Your task to perform on an android device: Search for seafood restaurants on Google Maps Image 0: 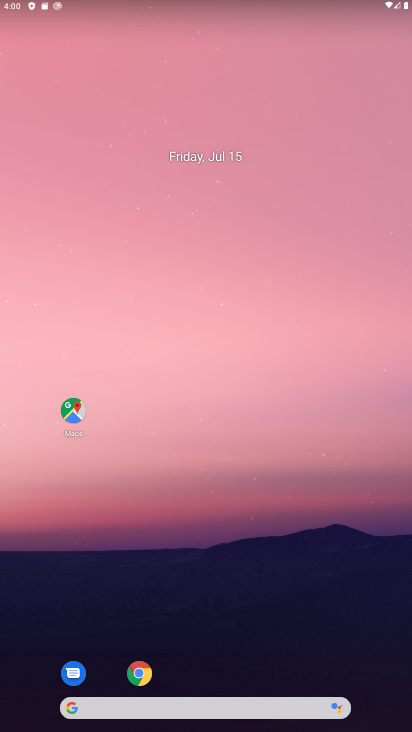
Step 0: drag from (237, 665) to (240, 300)
Your task to perform on an android device: Search for seafood restaurants on Google Maps Image 1: 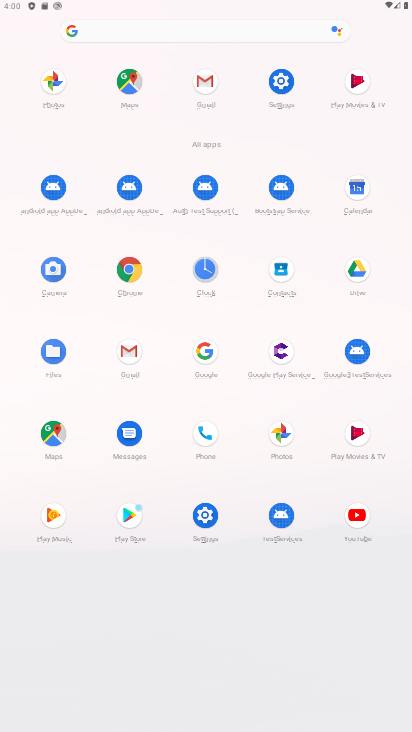
Step 1: click (59, 434)
Your task to perform on an android device: Search for seafood restaurants on Google Maps Image 2: 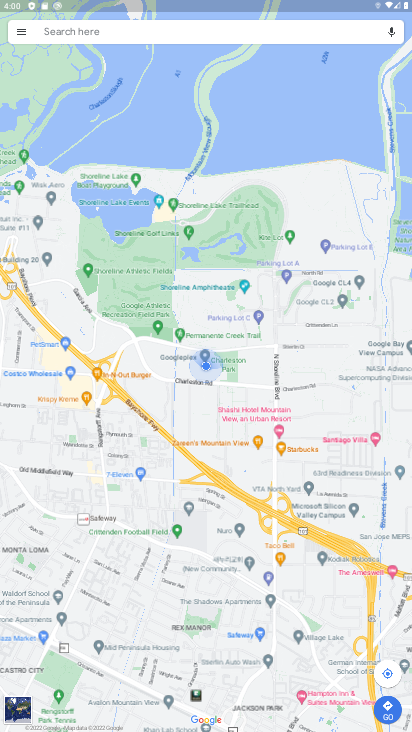
Step 2: click (164, 17)
Your task to perform on an android device: Search for seafood restaurants on Google Maps Image 3: 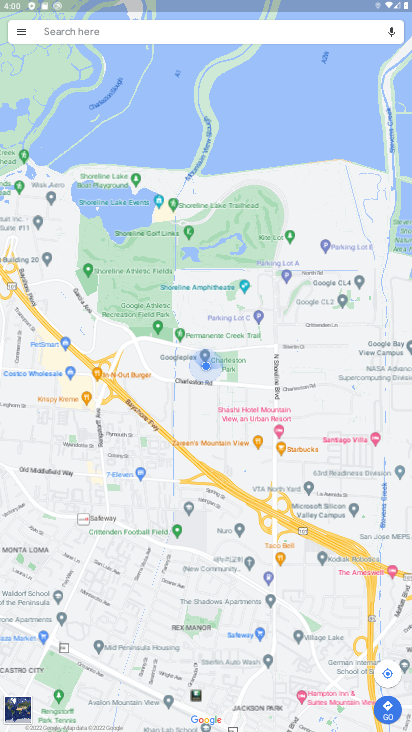
Step 3: type " seafood restaurants  "
Your task to perform on an android device: Search for seafood restaurants on Google Maps Image 4: 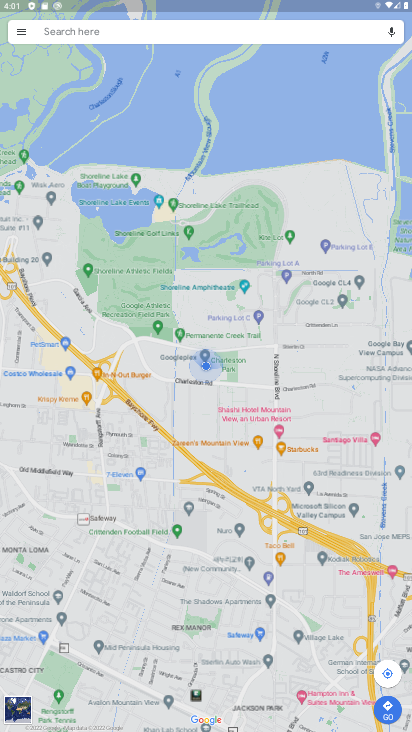
Step 4: click (212, 30)
Your task to perform on an android device: Search for seafood restaurants on Google Maps Image 5: 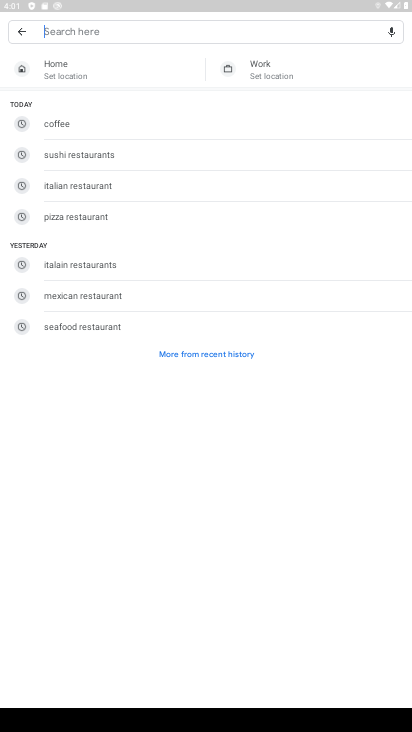
Step 5: type "seafood restaurants "
Your task to perform on an android device: Search for seafood restaurants on Google Maps Image 6: 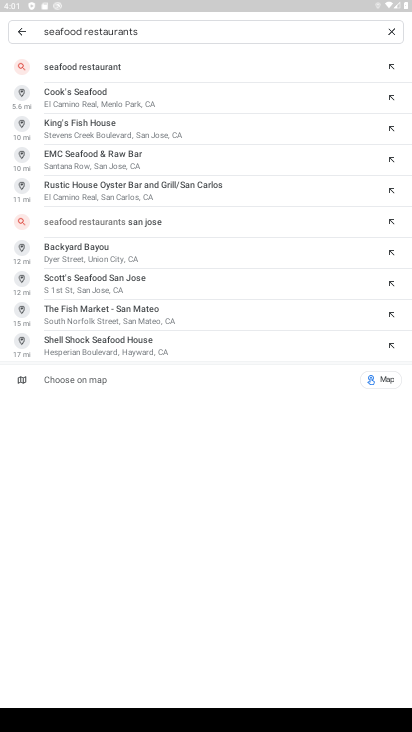
Step 6: click (70, 65)
Your task to perform on an android device: Search for seafood restaurants on Google Maps Image 7: 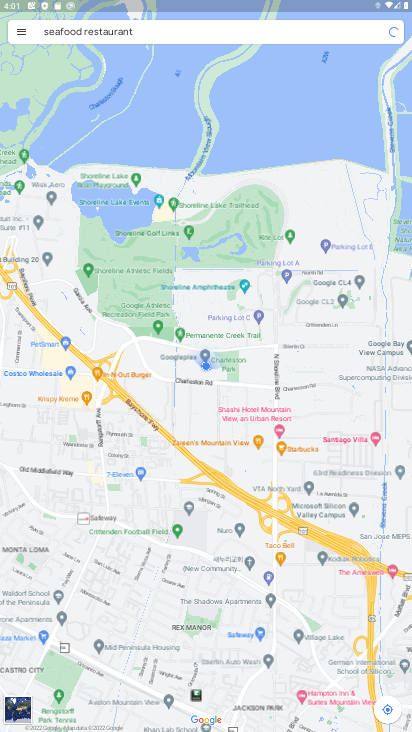
Step 7: task complete